Your task to perform on an android device: allow notifications from all sites in the chrome app Image 0: 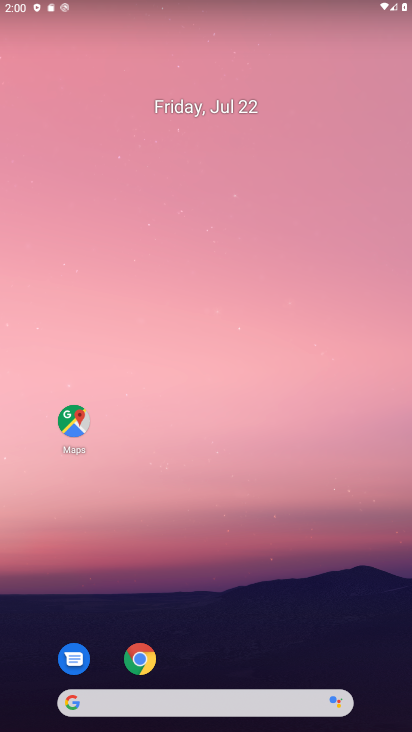
Step 0: task complete